Your task to perform on an android device: find photos in the google photos app Image 0: 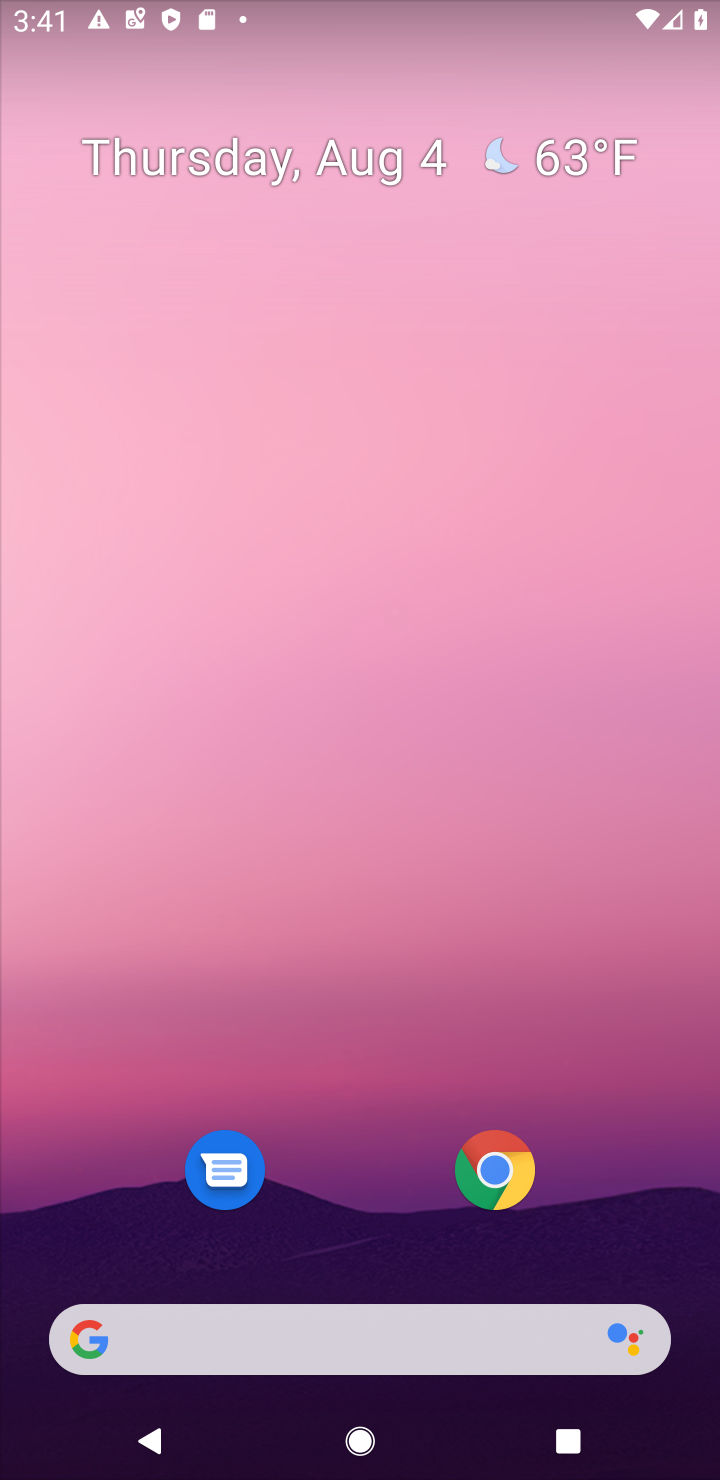
Step 0: drag from (623, 1086) to (493, 208)
Your task to perform on an android device: find photos in the google photos app Image 1: 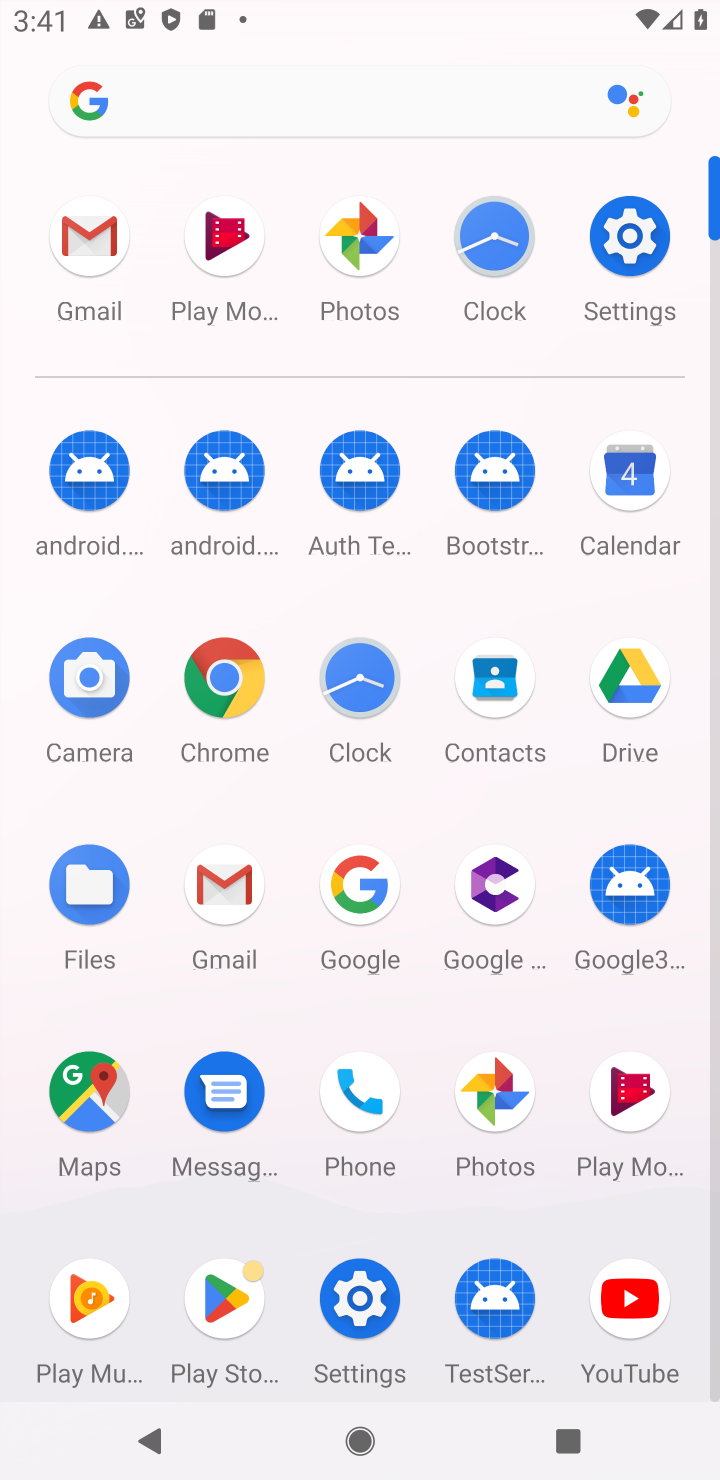
Step 1: click (501, 1084)
Your task to perform on an android device: find photos in the google photos app Image 2: 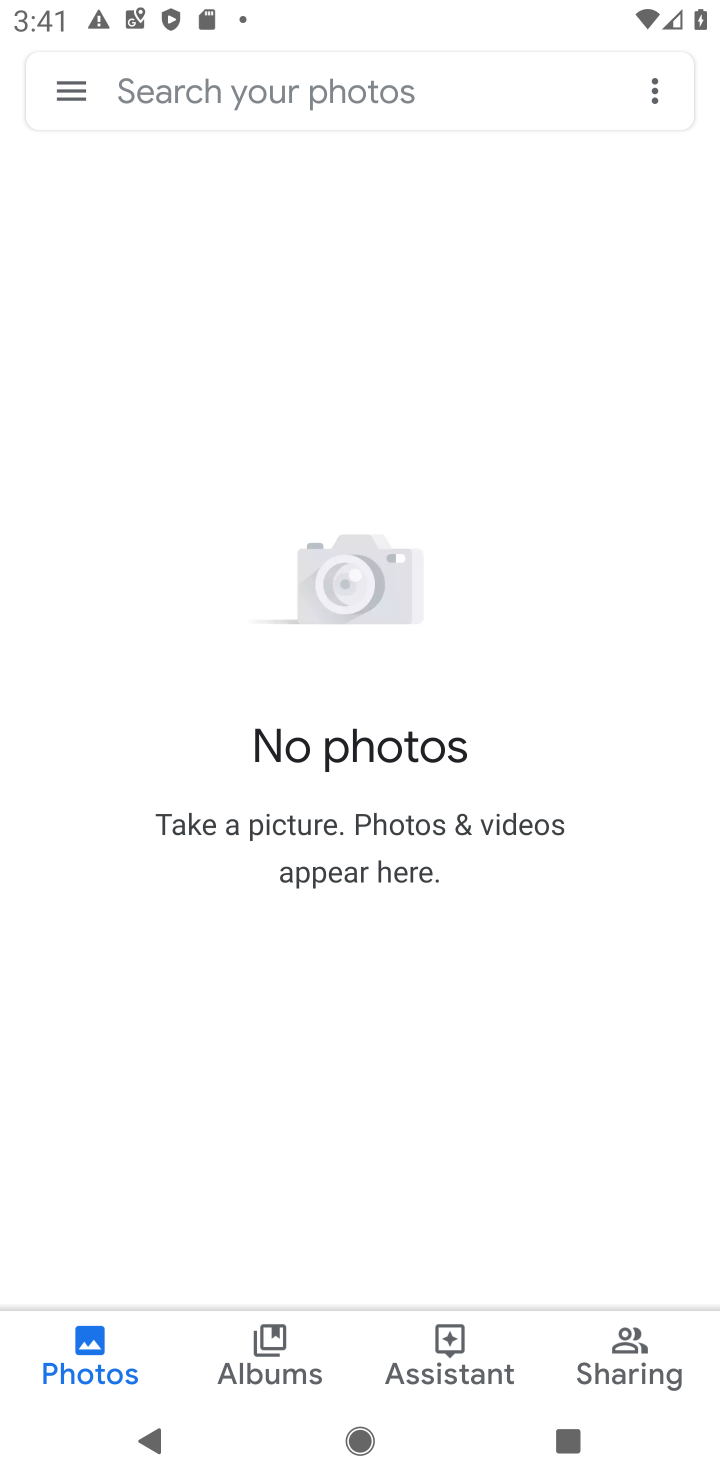
Step 2: task complete